Your task to perform on an android device: Is it going to rain today? Image 0: 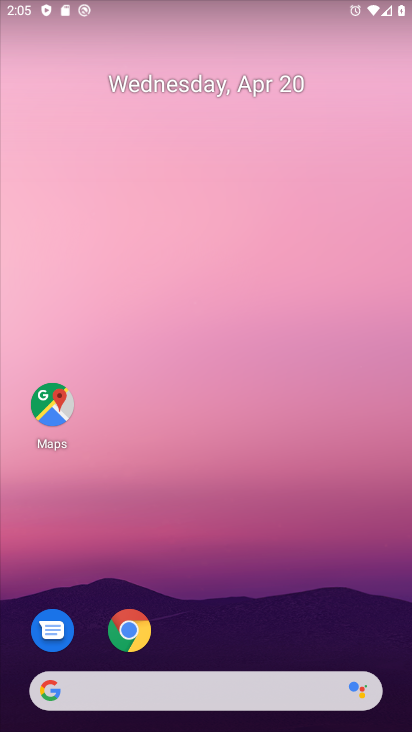
Step 0: click (124, 630)
Your task to perform on an android device: Is it going to rain today? Image 1: 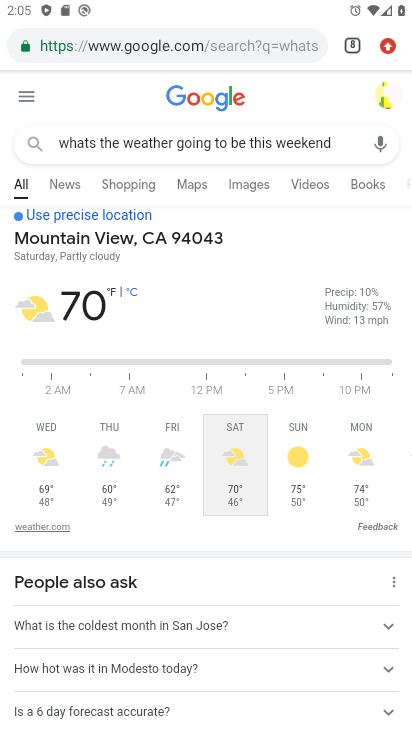
Step 1: click (349, 44)
Your task to perform on an android device: Is it going to rain today? Image 2: 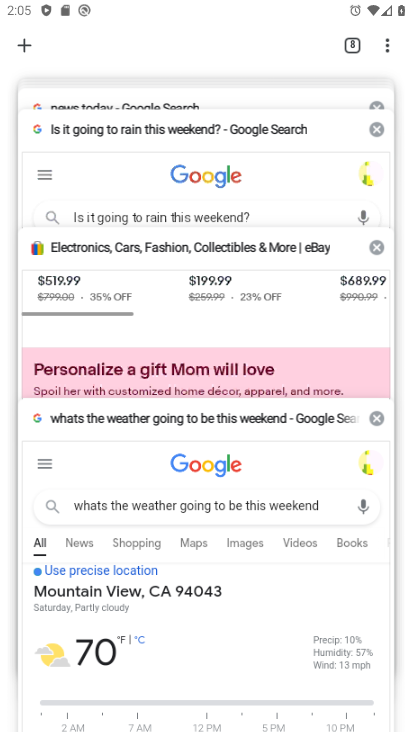
Step 2: drag from (115, 178) to (86, 594)
Your task to perform on an android device: Is it going to rain today? Image 3: 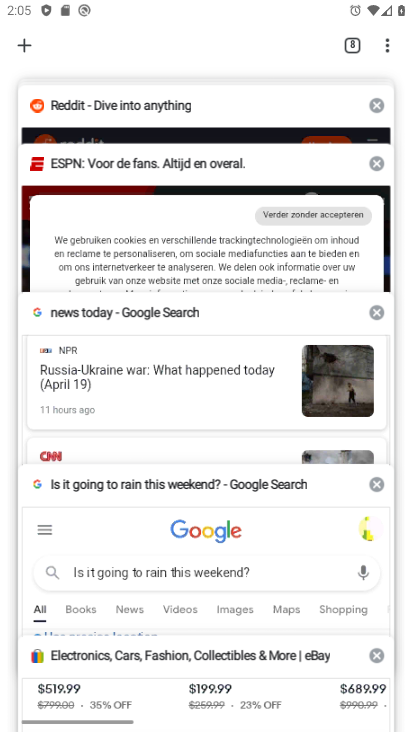
Step 3: drag from (166, 326) to (171, 565)
Your task to perform on an android device: Is it going to rain today? Image 4: 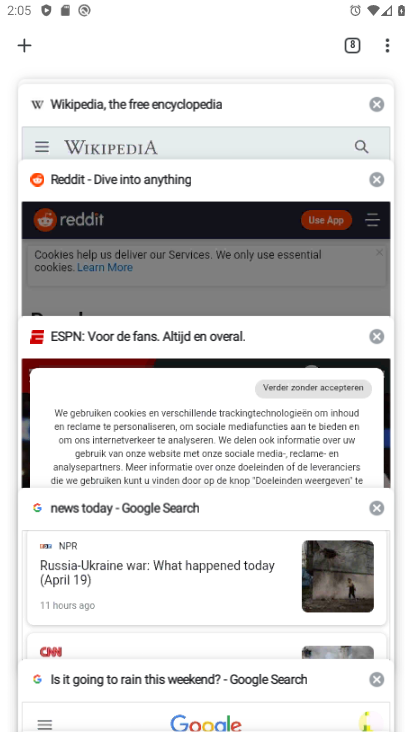
Step 4: drag from (108, 212) to (134, 507)
Your task to perform on an android device: Is it going to rain today? Image 5: 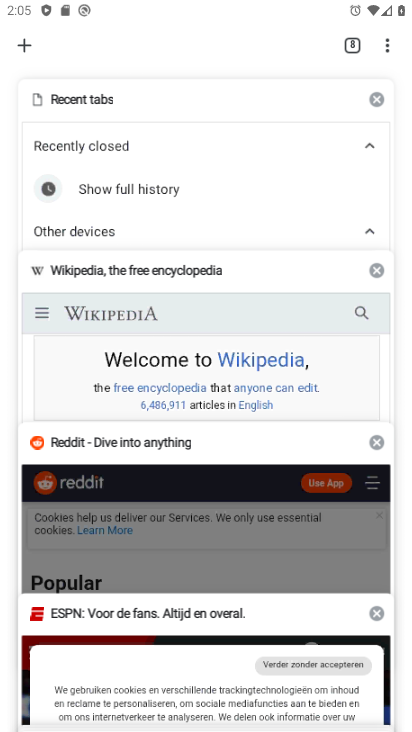
Step 5: click (26, 38)
Your task to perform on an android device: Is it going to rain today? Image 6: 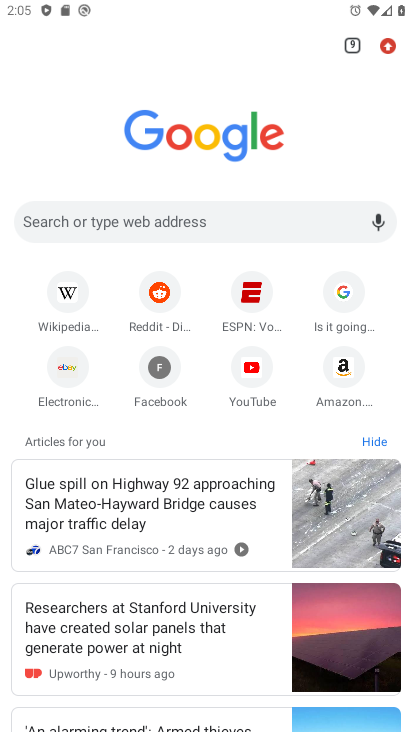
Step 6: click (155, 228)
Your task to perform on an android device: Is it going to rain today? Image 7: 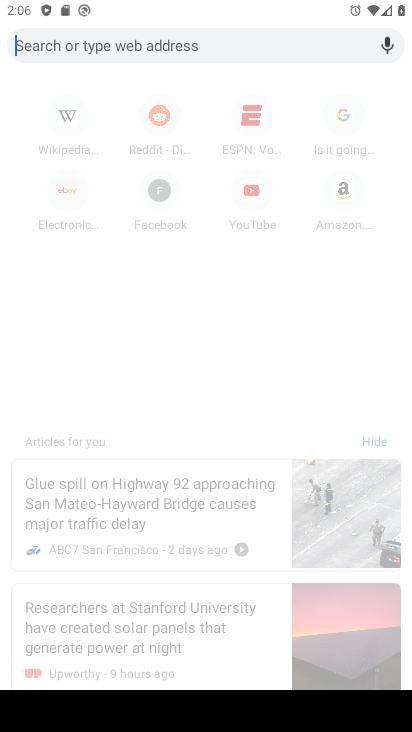
Step 7: type "is it going to rain today"
Your task to perform on an android device: Is it going to rain today? Image 8: 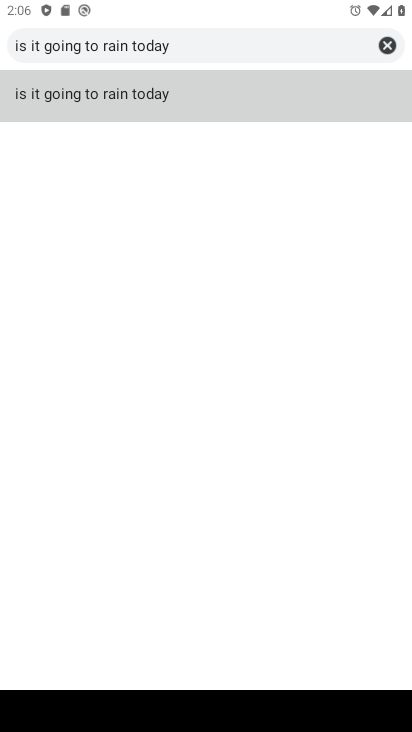
Step 8: click (135, 100)
Your task to perform on an android device: Is it going to rain today? Image 9: 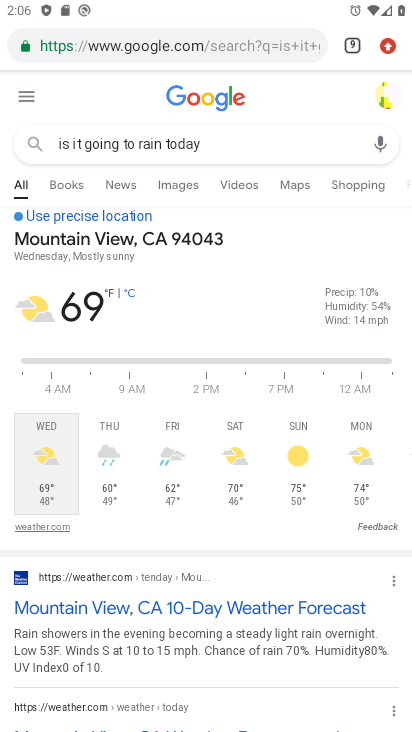
Step 9: task complete